Your task to perform on an android device: toggle notification dots Image 0: 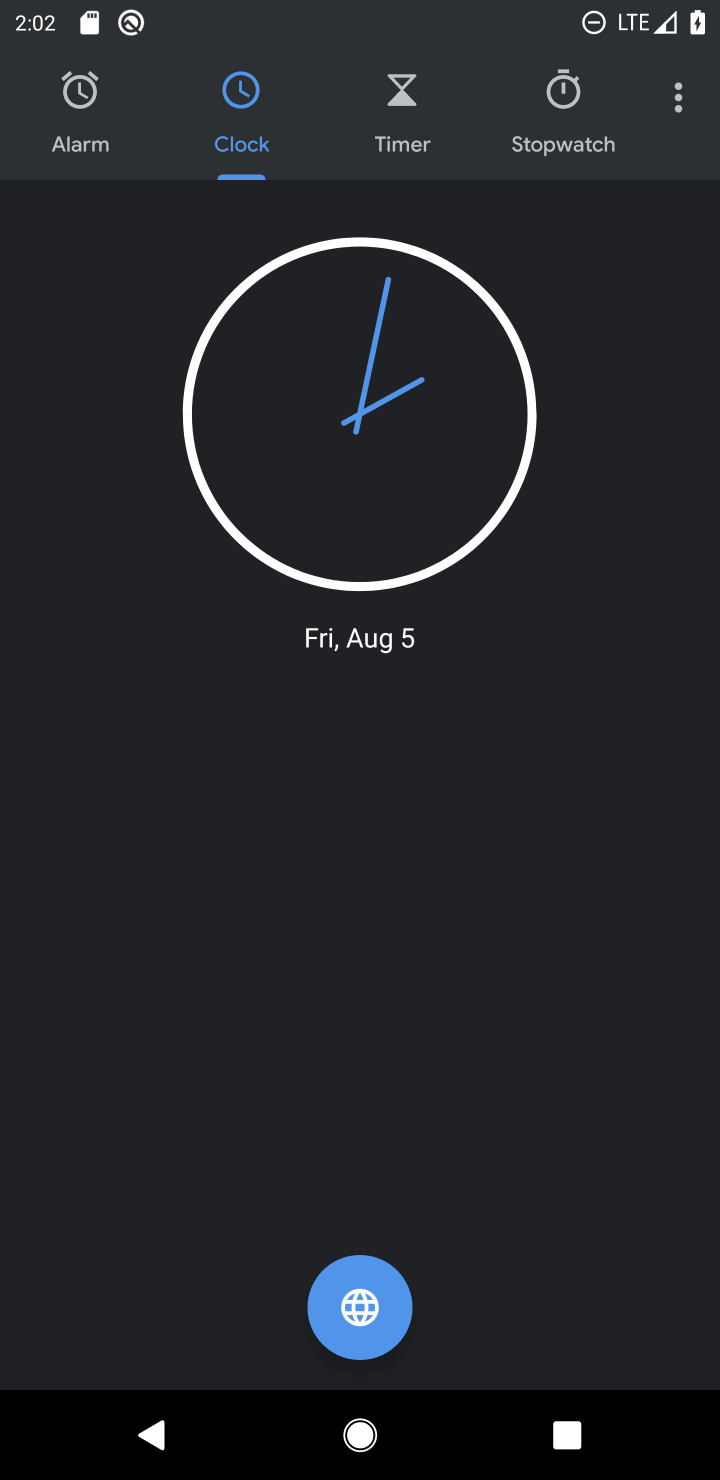
Step 0: press home button
Your task to perform on an android device: toggle notification dots Image 1: 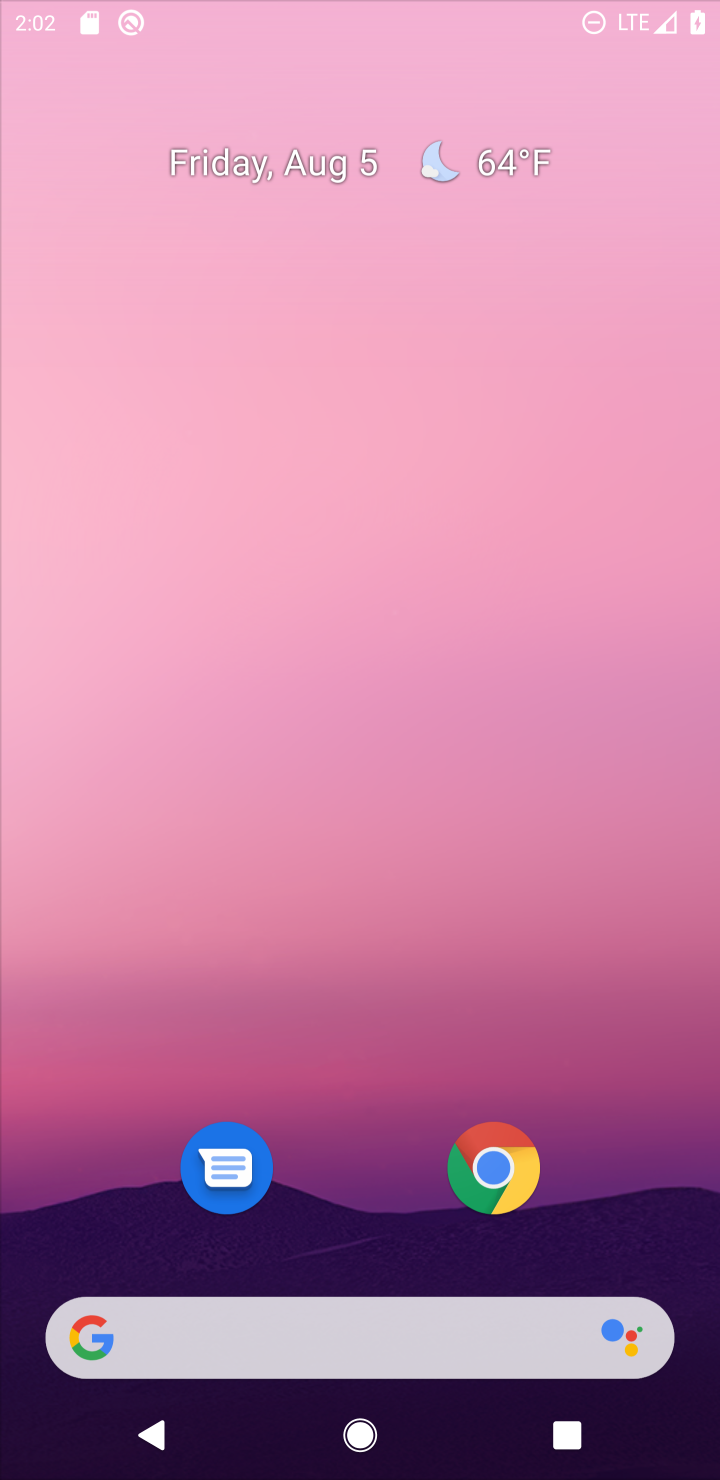
Step 1: drag from (603, 1038) to (536, 19)
Your task to perform on an android device: toggle notification dots Image 2: 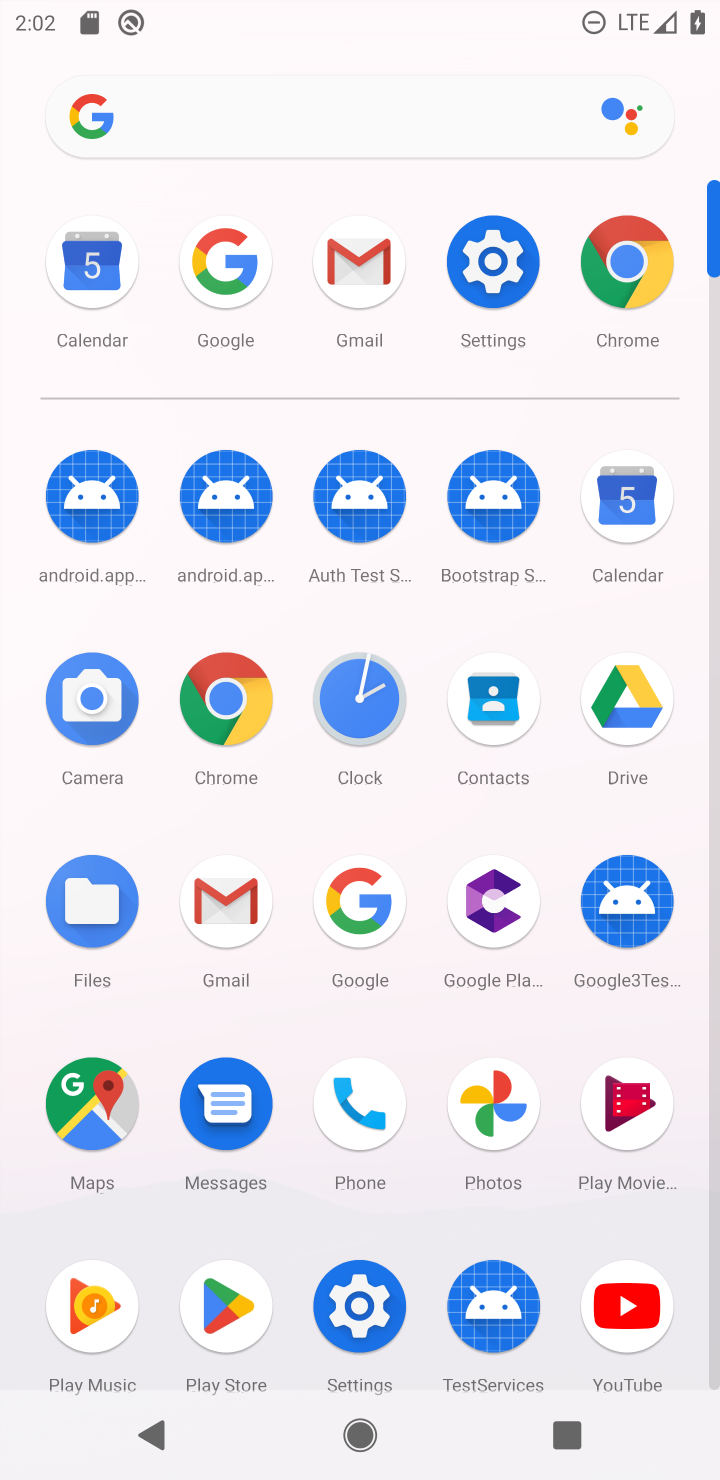
Step 2: click (488, 277)
Your task to perform on an android device: toggle notification dots Image 3: 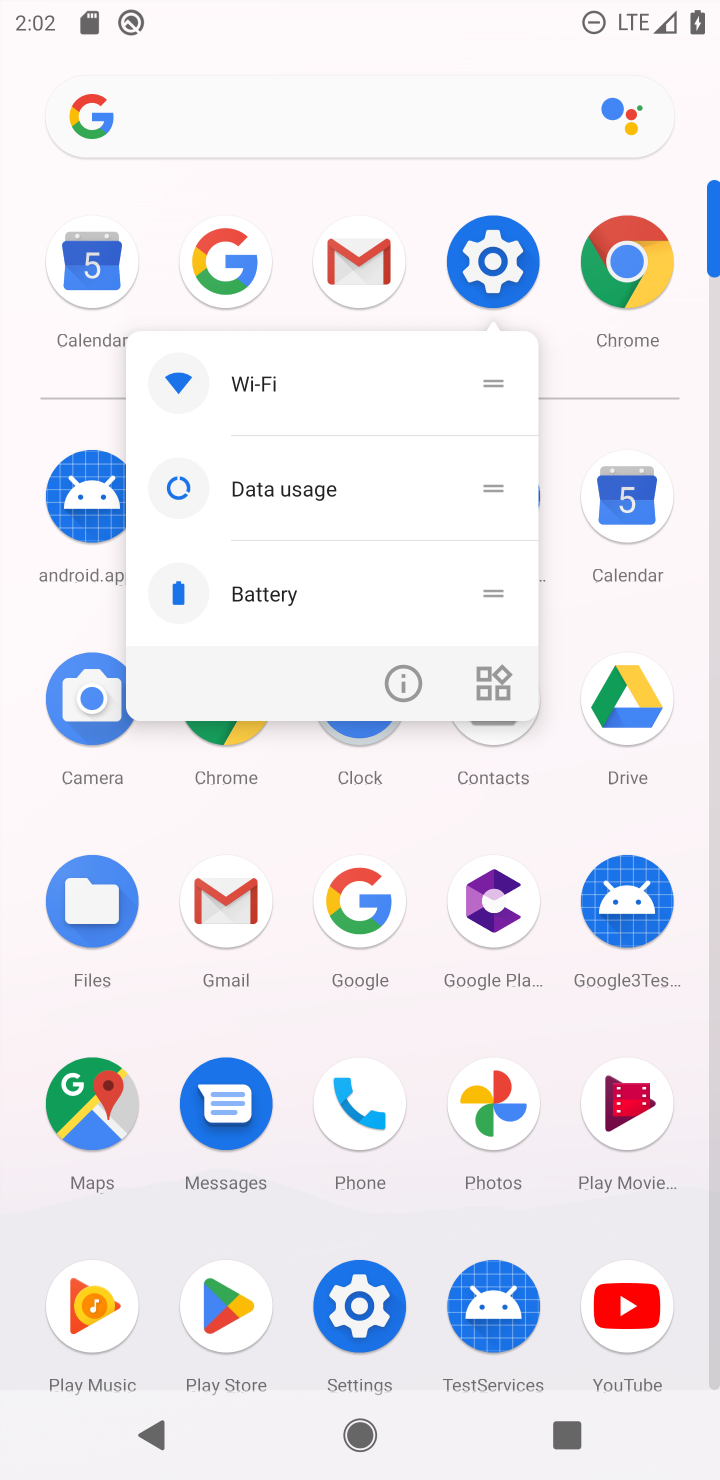
Step 3: click (488, 277)
Your task to perform on an android device: toggle notification dots Image 4: 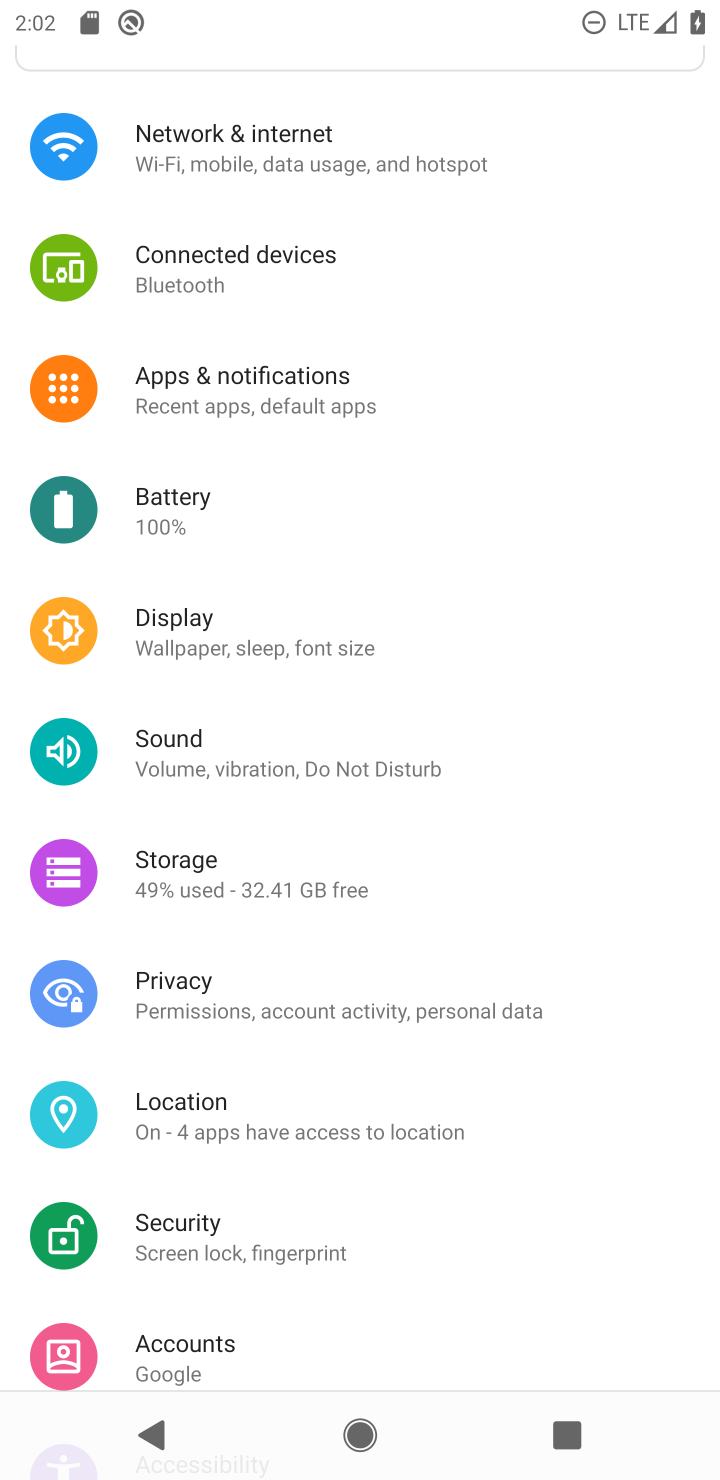
Step 4: click (268, 394)
Your task to perform on an android device: toggle notification dots Image 5: 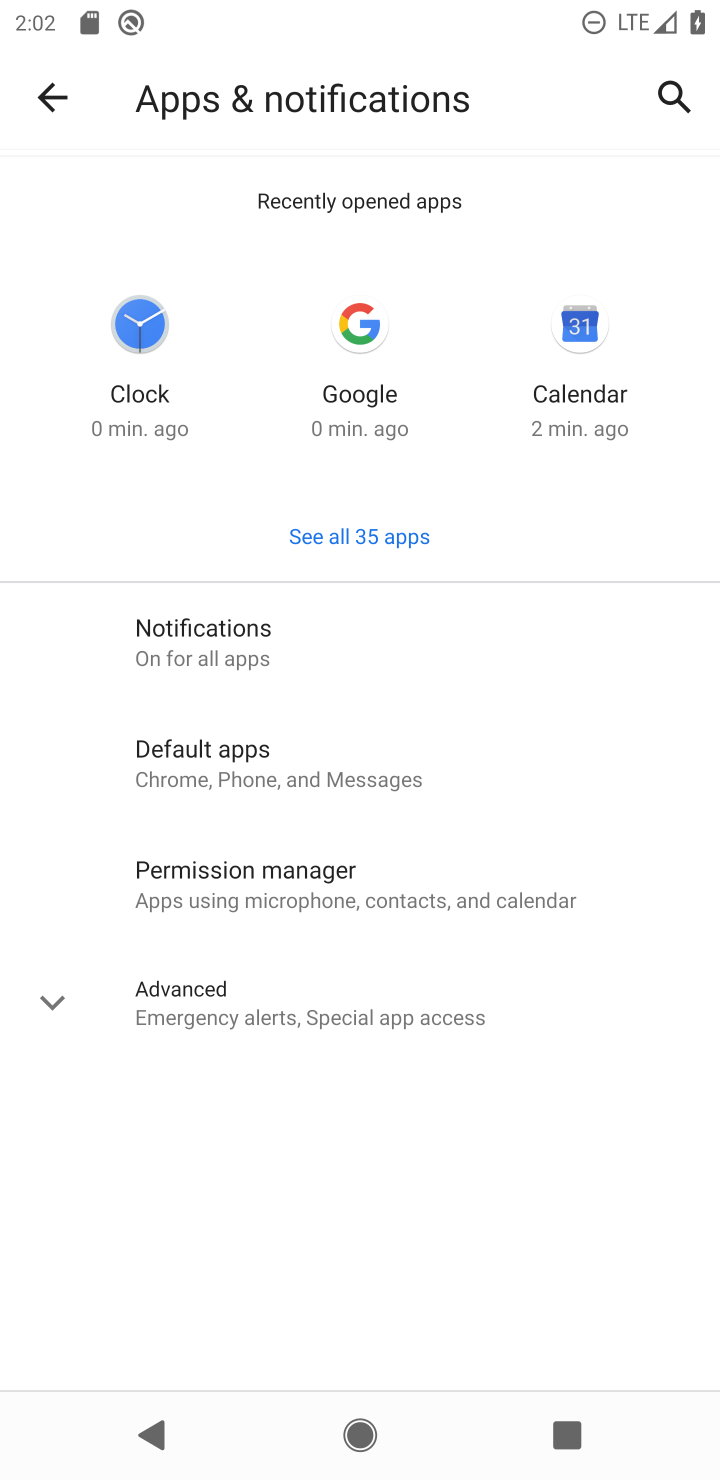
Step 5: click (163, 999)
Your task to perform on an android device: toggle notification dots Image 6: 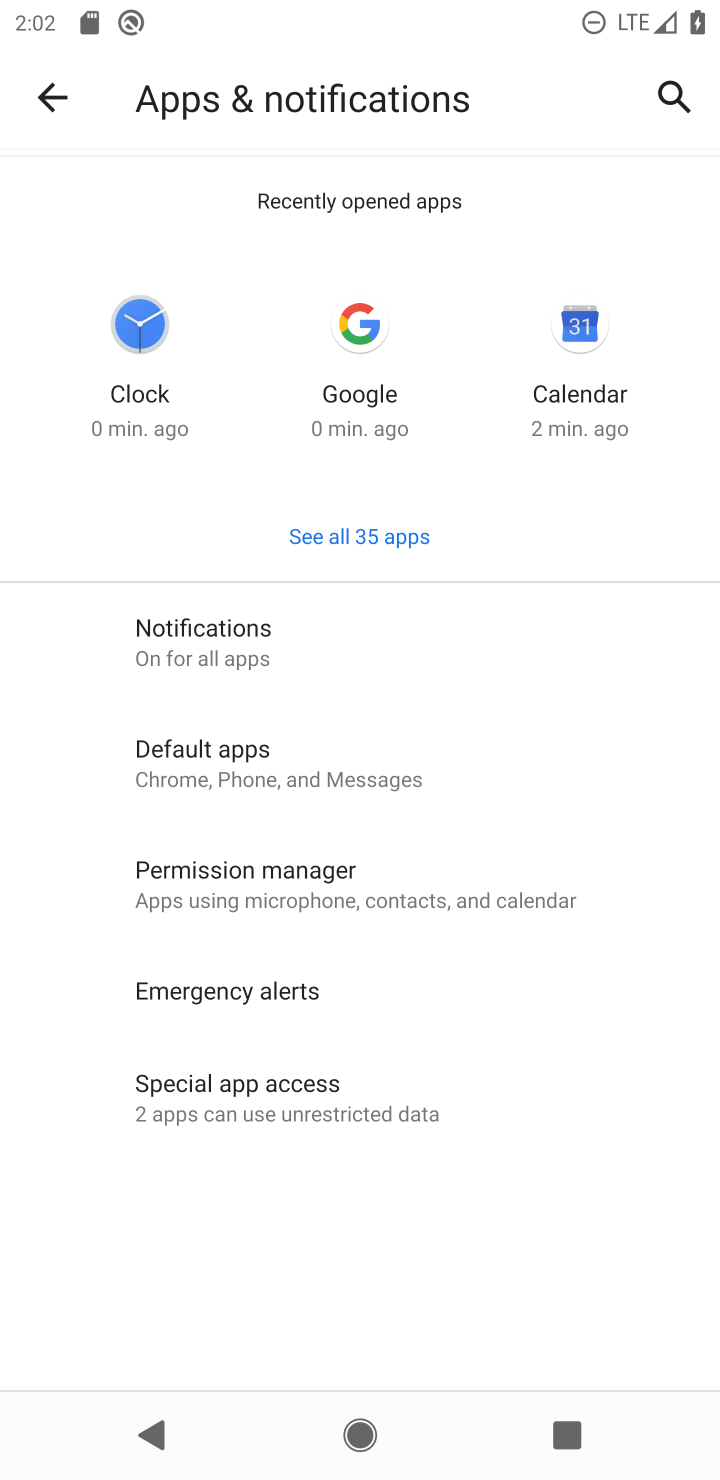
Step 6: click (251, 655)
Your task to perform on an android device: toggle notification dots Image 7: 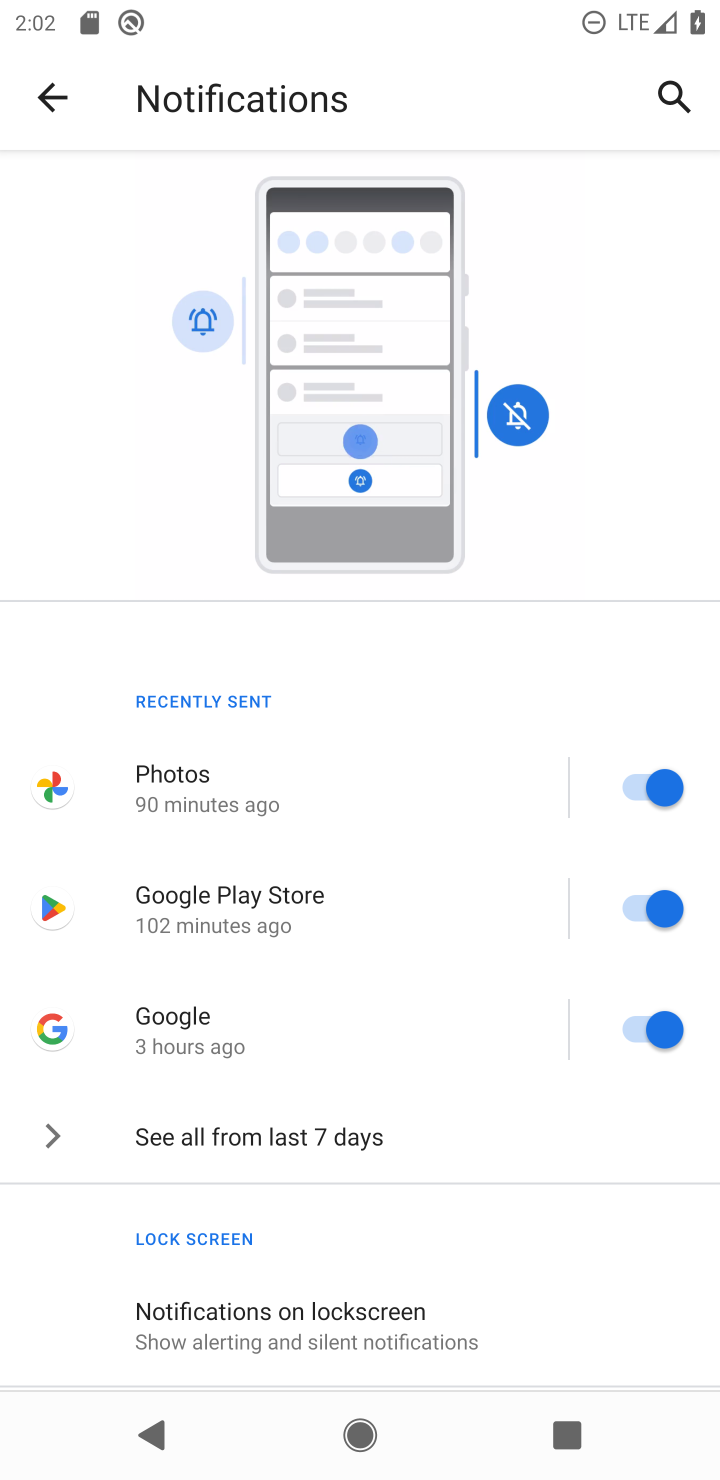
Step 7: drag from (252, 1336) to (263, 131)
Your task to perform on an android device: toggle notification dots Image 8: 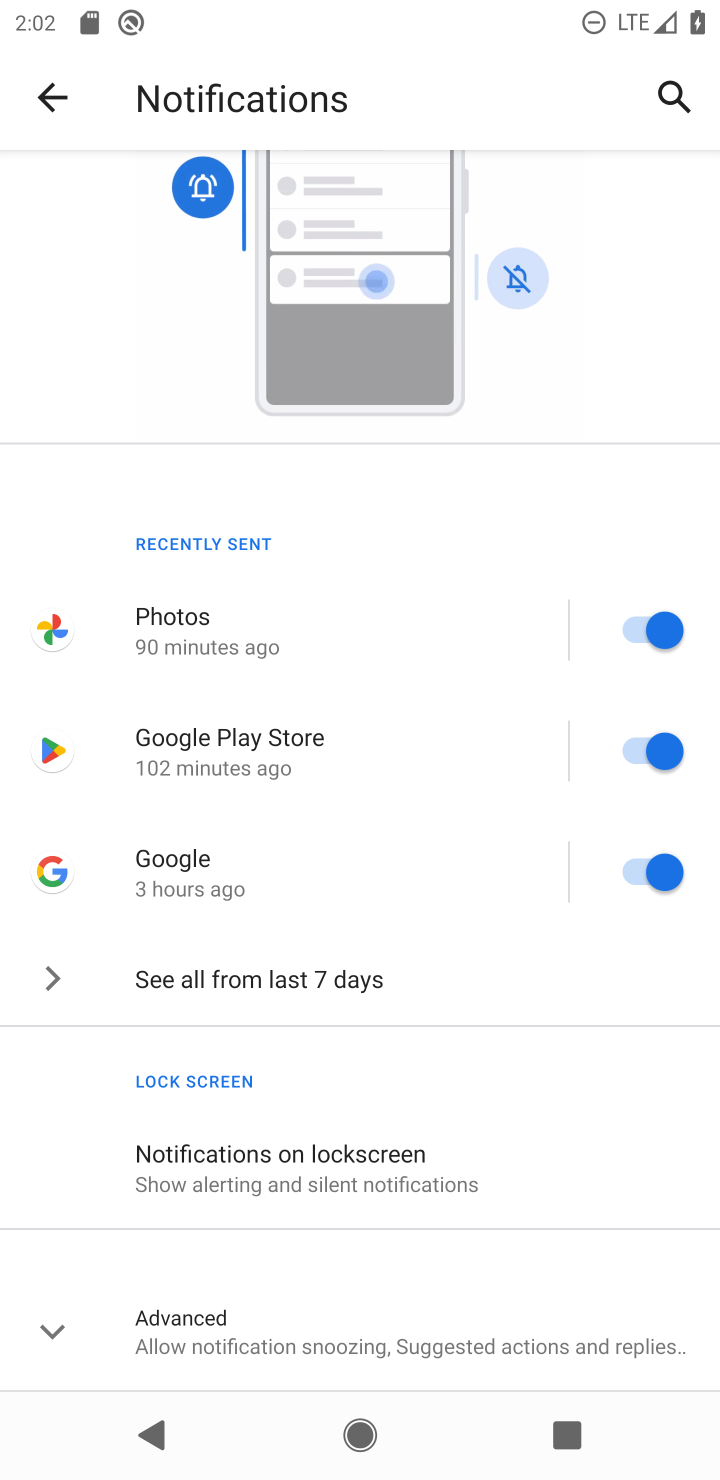
Step 8: drag from (107, 1307) to (305, 81)
Your task to perform on an android device: toggle notification dots Image 9: 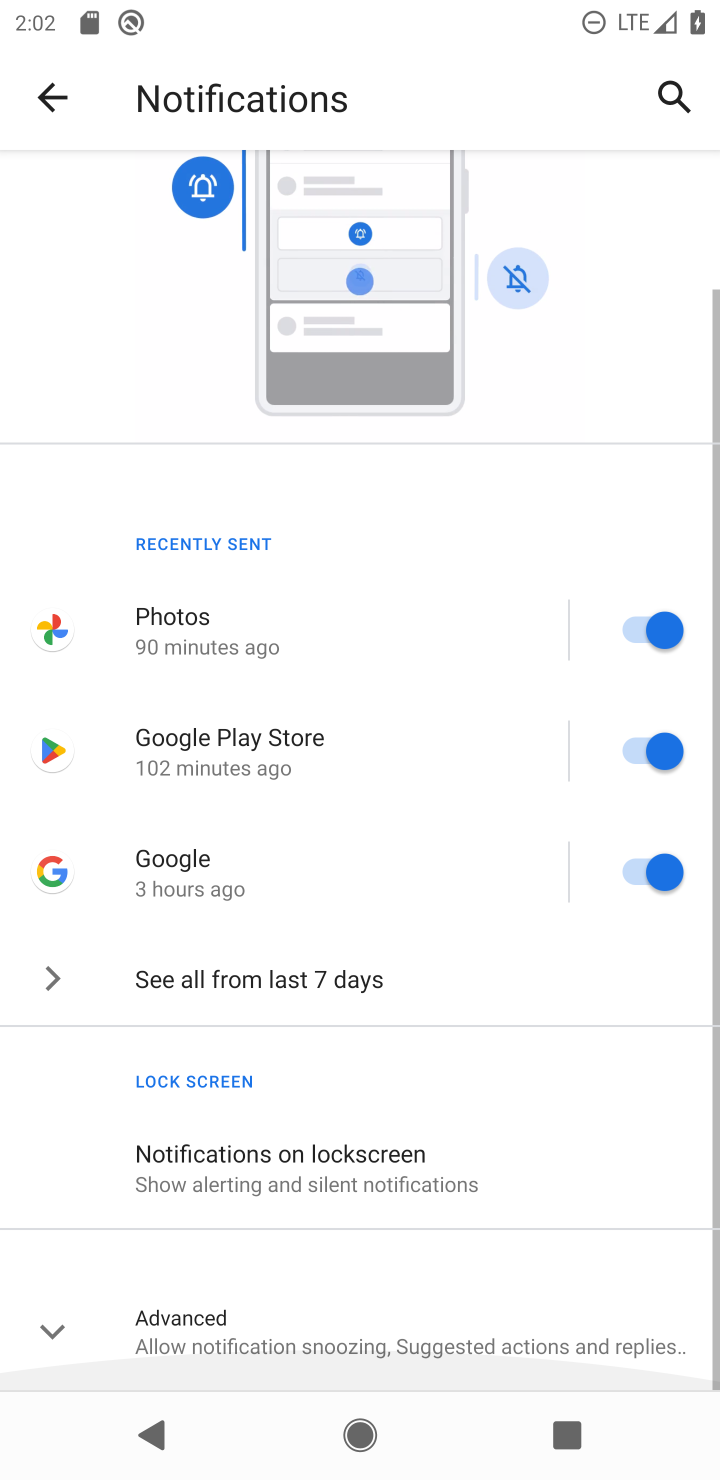
Step 9: drag from (231, 1325) to (332, 231)
Your task to perform on an android device: toggle notification dots Image 10: 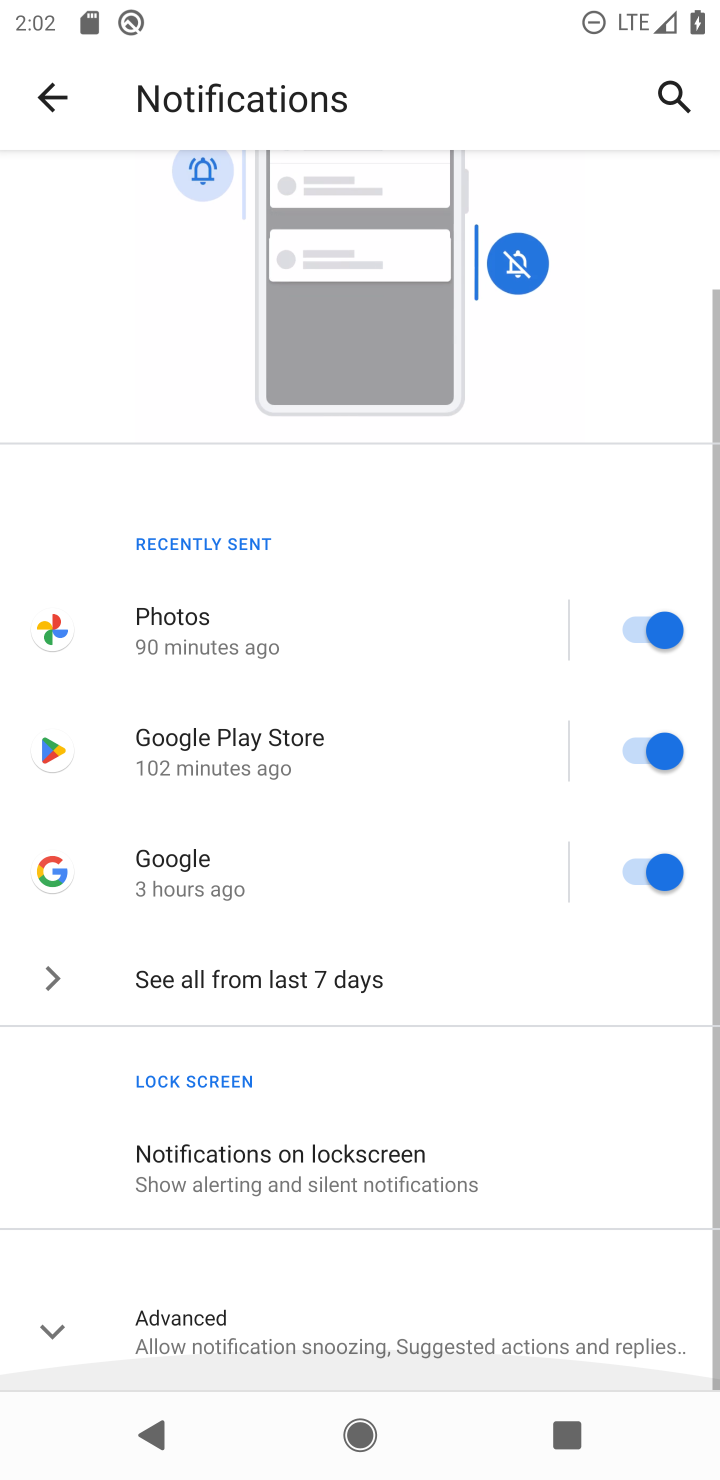
Step 10: click (60, 1329)
Your task to perform on an android device: toggle notification dots Image 11: 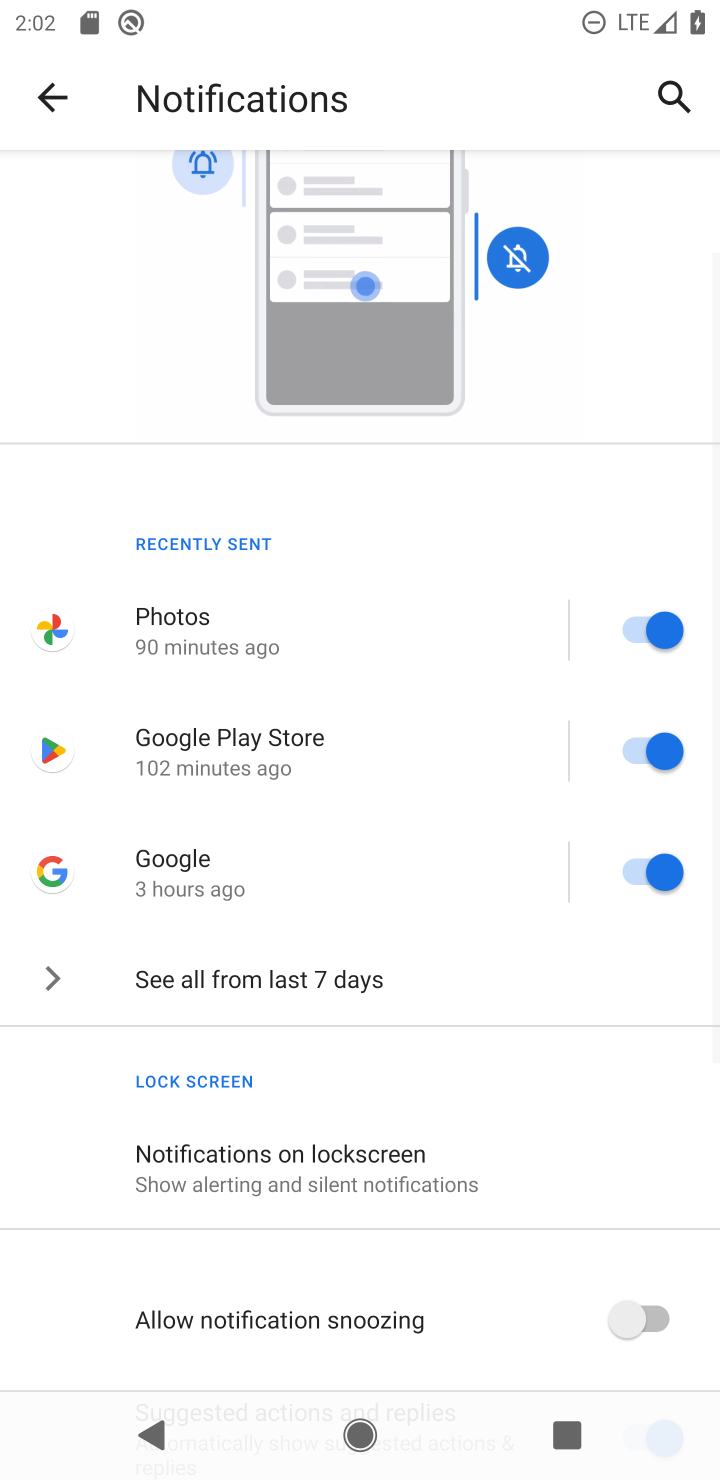
Step 11: drag from (294, 1278) to (268, 162)
Your task to perform on an android device: toggle notification dots Image 12: 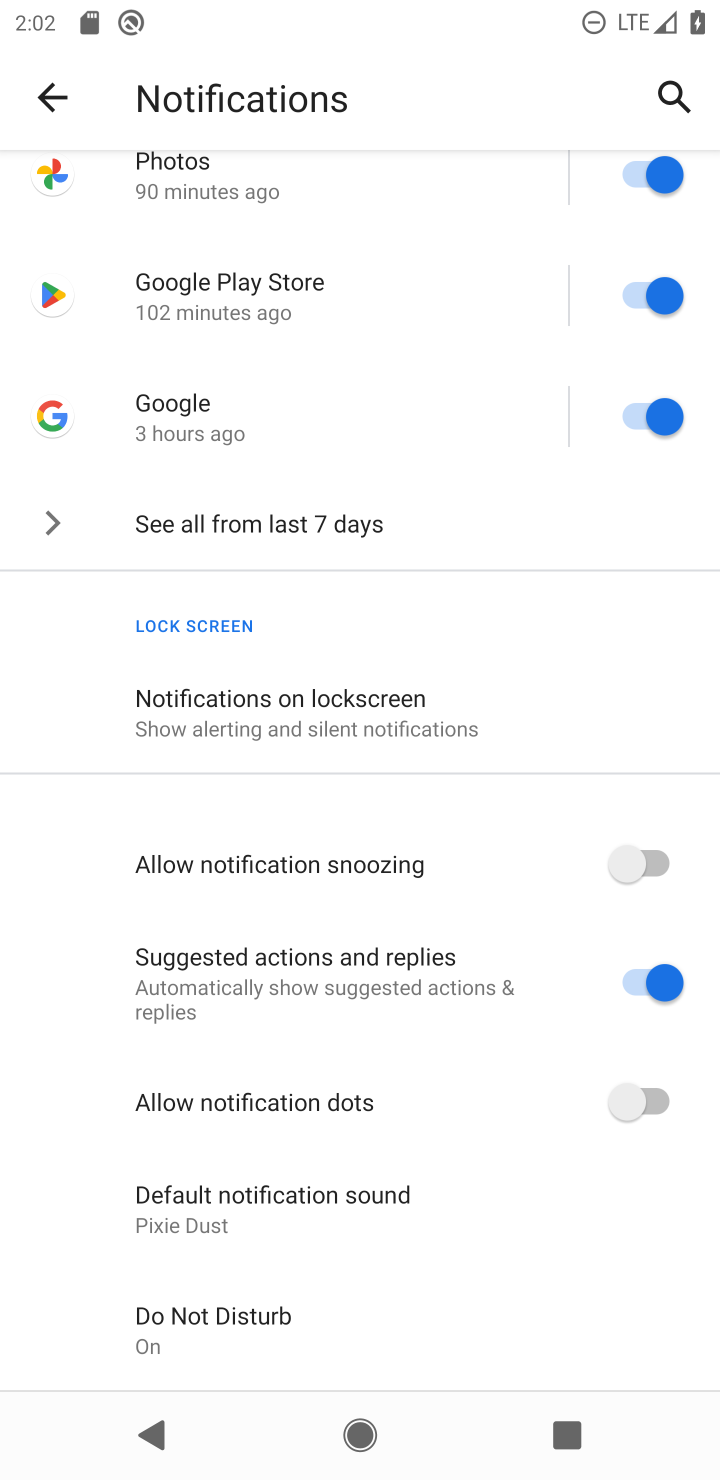
Step 12: click (575, 1120)
Your task to perform on an android device: toggle notification dots Image 13: 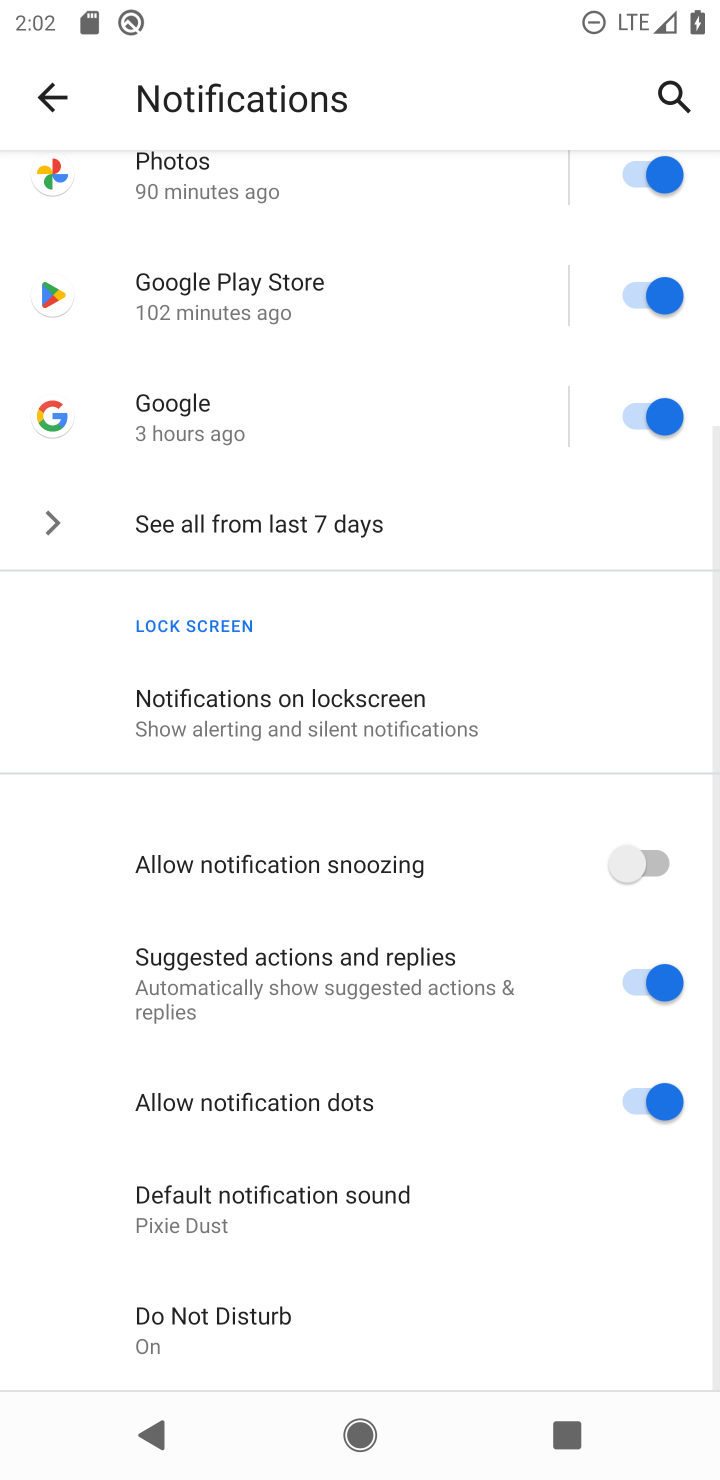
Step 13: task complete